Your task to perform on an android device: Empty the shopping cart on bestbuy. Add razer thresher to the cart on bestbuy, then select checkout. Image 0: 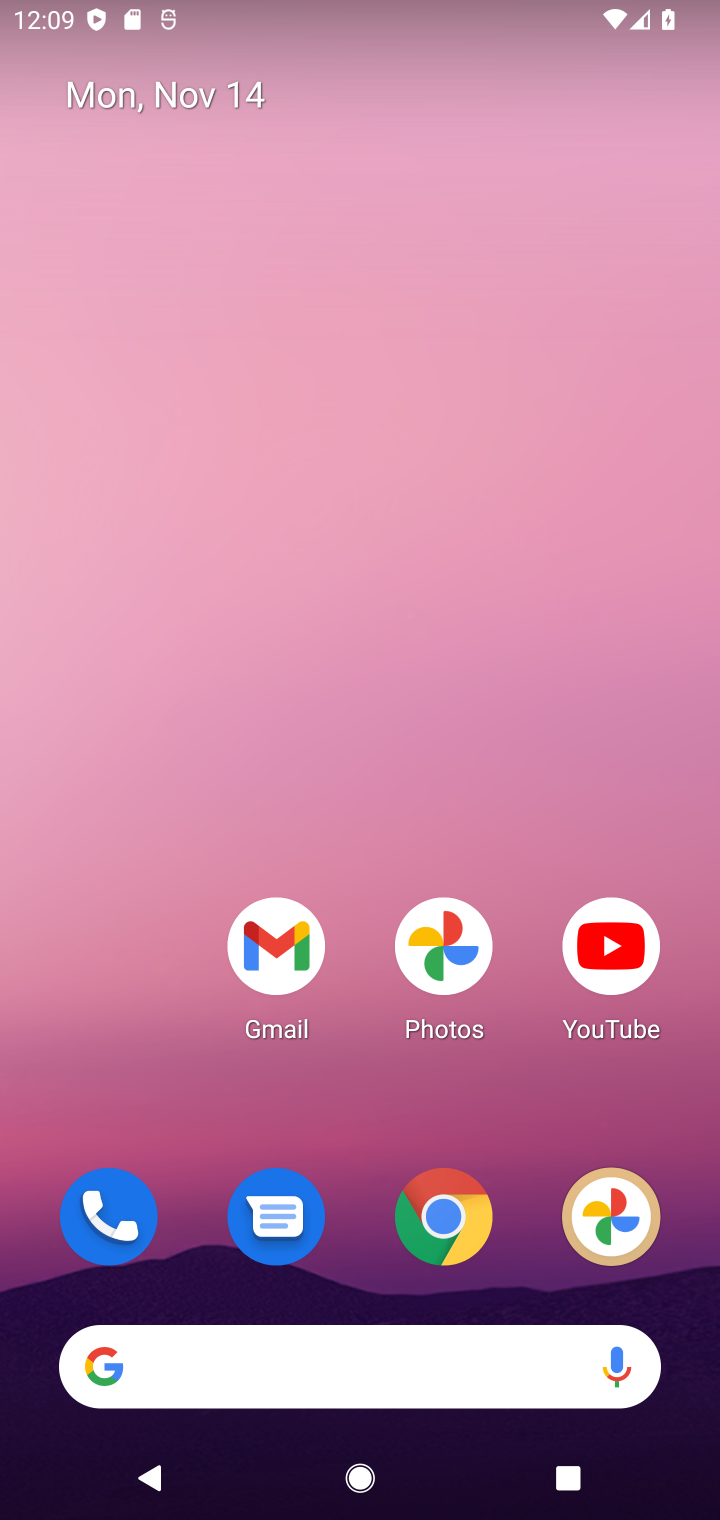
Step 0: click (437, 1214)
Your task to perform on an android device: Empty the shopping cart on bestbuy. Add razer thresher to the cart on bestbuy, then select checkout. Image 1: 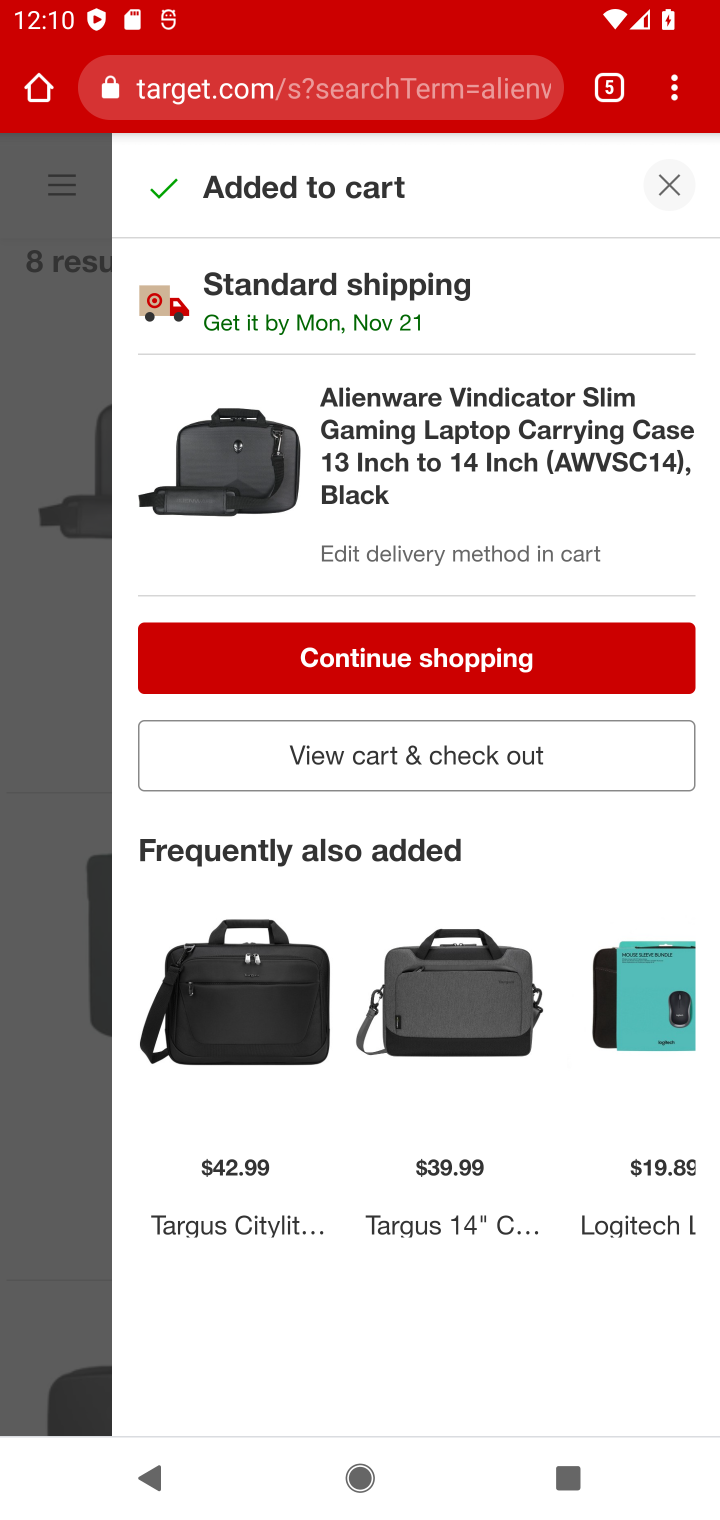
Step 1: click (613, 93)
Your task to perform on an android device: Empty the shopping cart on bestbuy. Add razer thresher to the cart on bestbuy, then select checkout. Image 2: 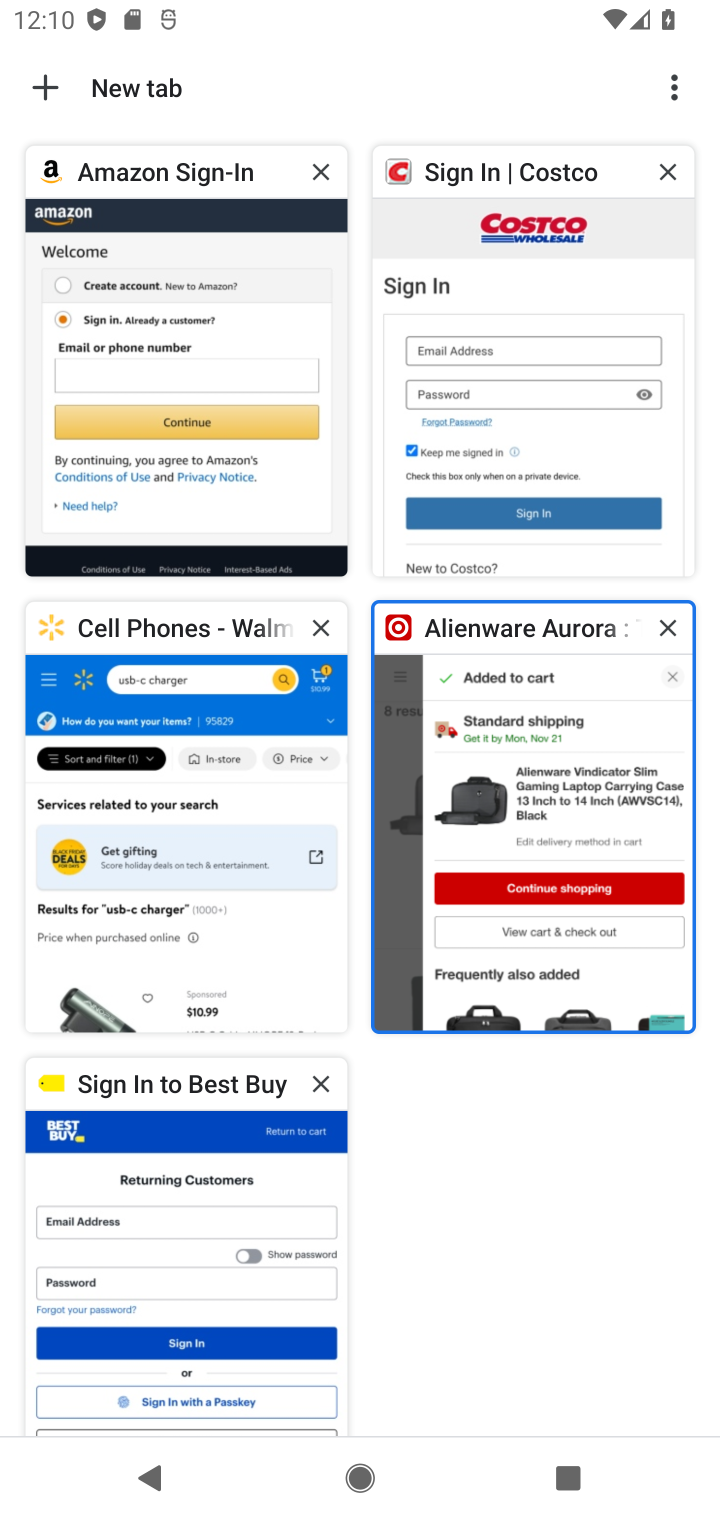
Step 2: click (183, 1293)
Your task to perform on an android device: Empty the shopping cart on bestbuy. Add razer thresher to the cart on bestbuy, then select checkout. Image 3: 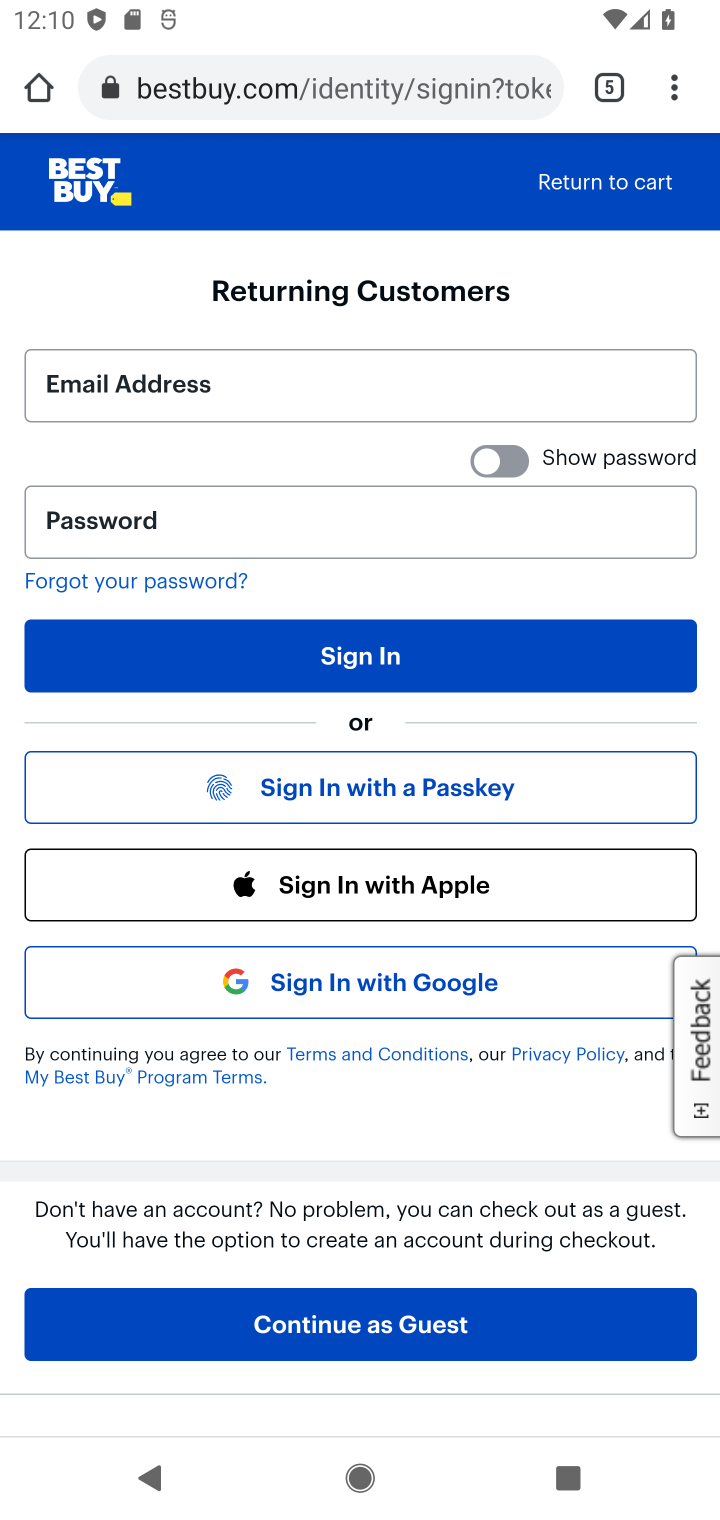
Step 3: click (617, 179)
Your task to perform on an android device: Empty the shopping cart on bestbuy. Add razer thresher to the cart on bestbuy, then select checkout. Image 4: 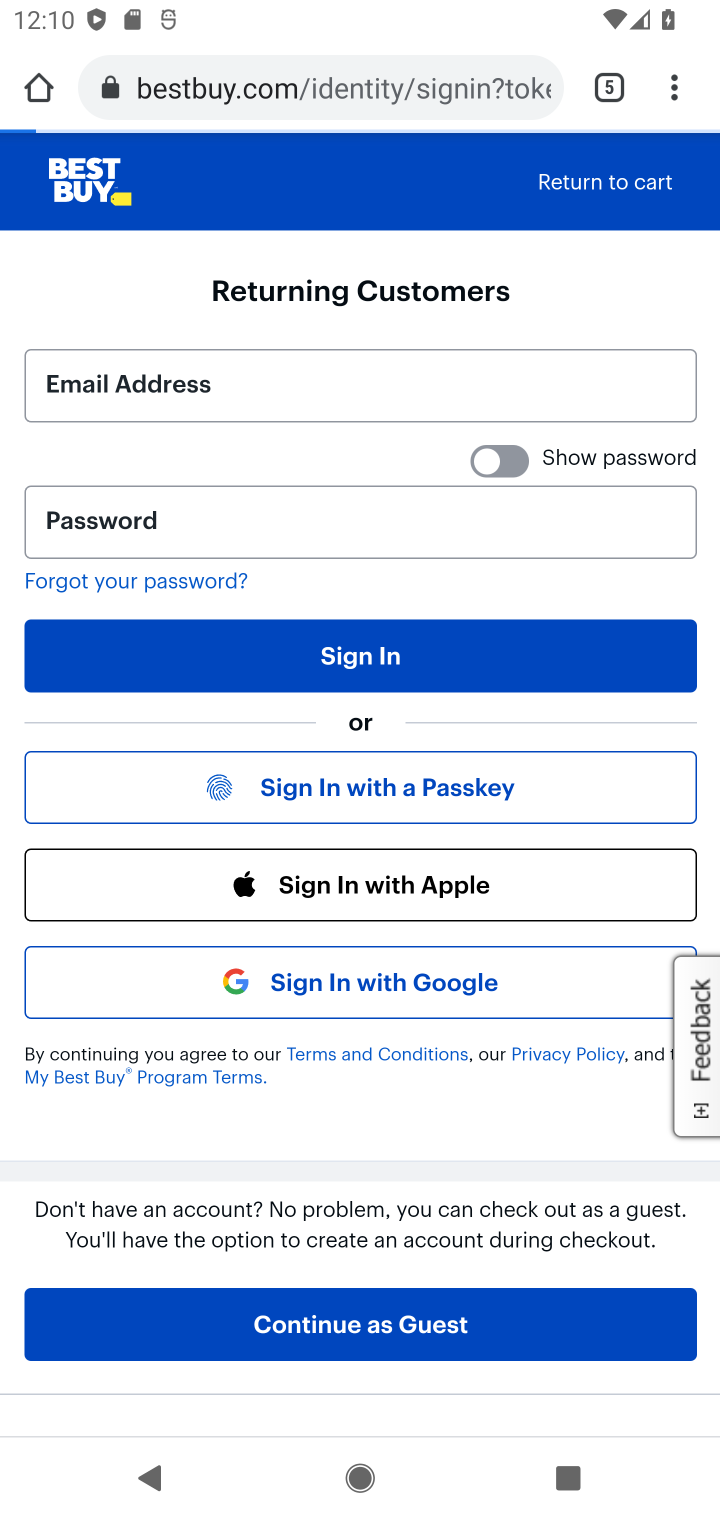
Step 4: click (603, 179)
Your task to perform on an android device: Empty the shopping cart on bestbuy. Add razer thresher to the cart on bestbuy, then select checkout. Image 5: 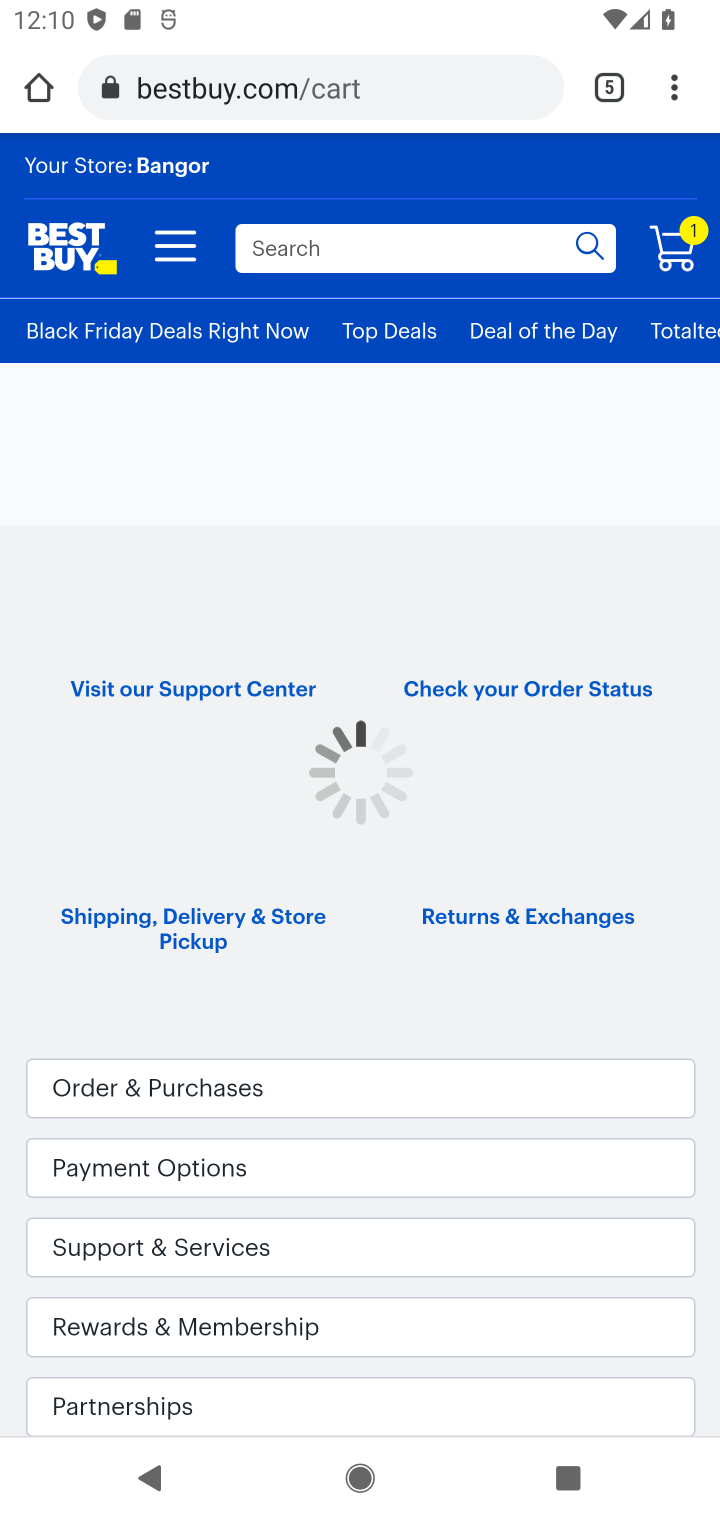
Step 5: click (418, 245)
Your task to perform on an android device: Empty the shopping cart on bestbuy. Add razer thresher to the cart on bestbuy, then select checkout. Image 6: 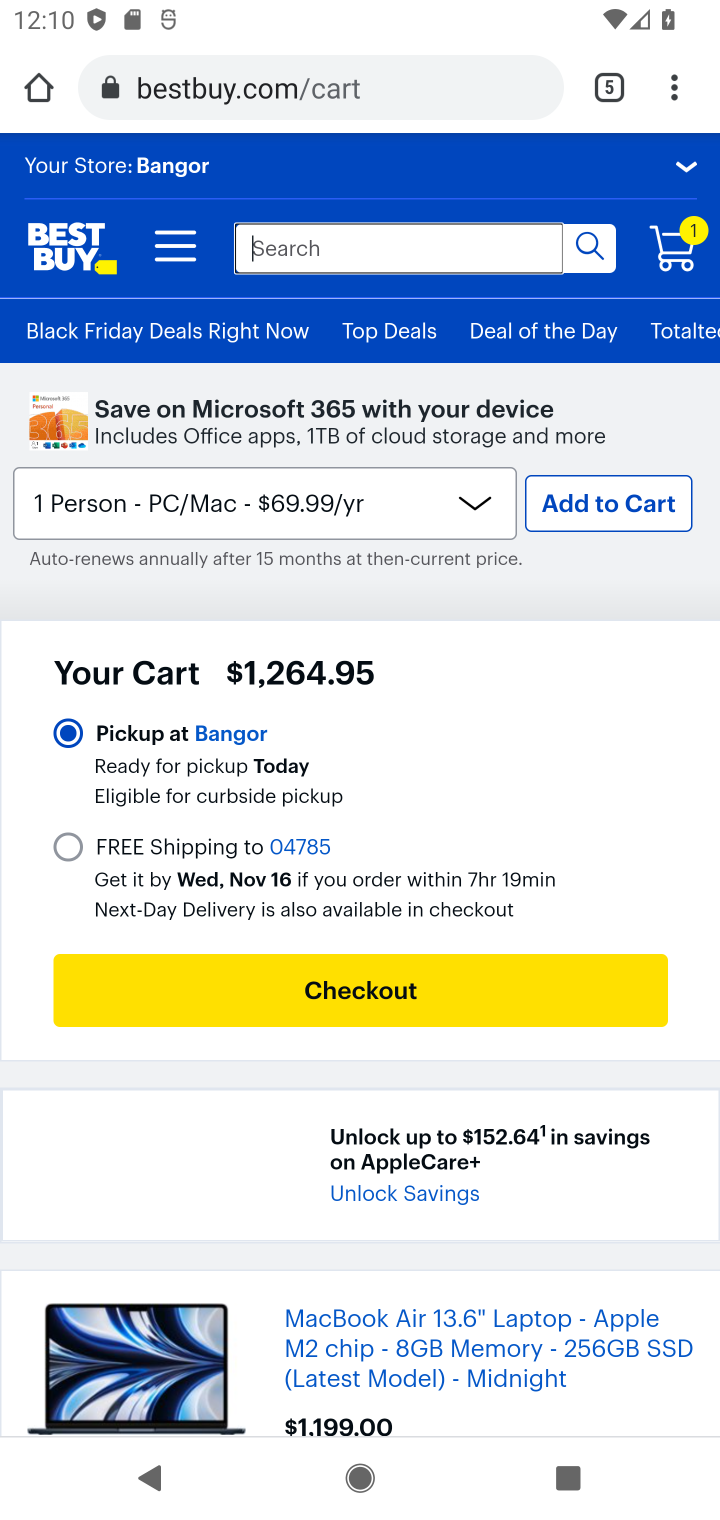
Step 6: type "razer thresher"
Your task to perform on an android device: Empty the shopping cart on bestbuy. Add razer thresher to the cart on bestbuy, then select checkout. Image 7: 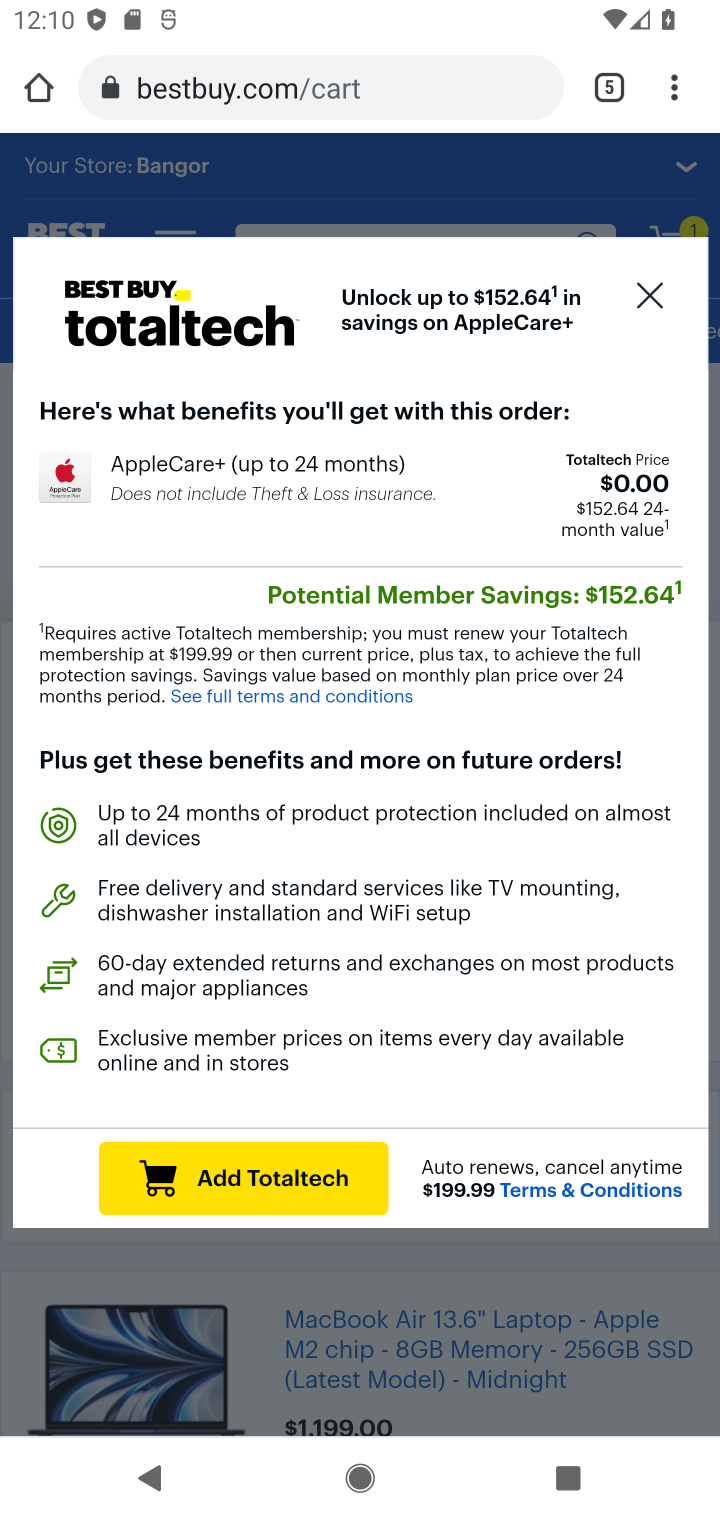
Step 7: click (649, 303)
Your task to perform on an android device: Empty the shopping cart on bestbuy. Add razer thresher to the cart on bestbuy, then select checkout. Image 8: 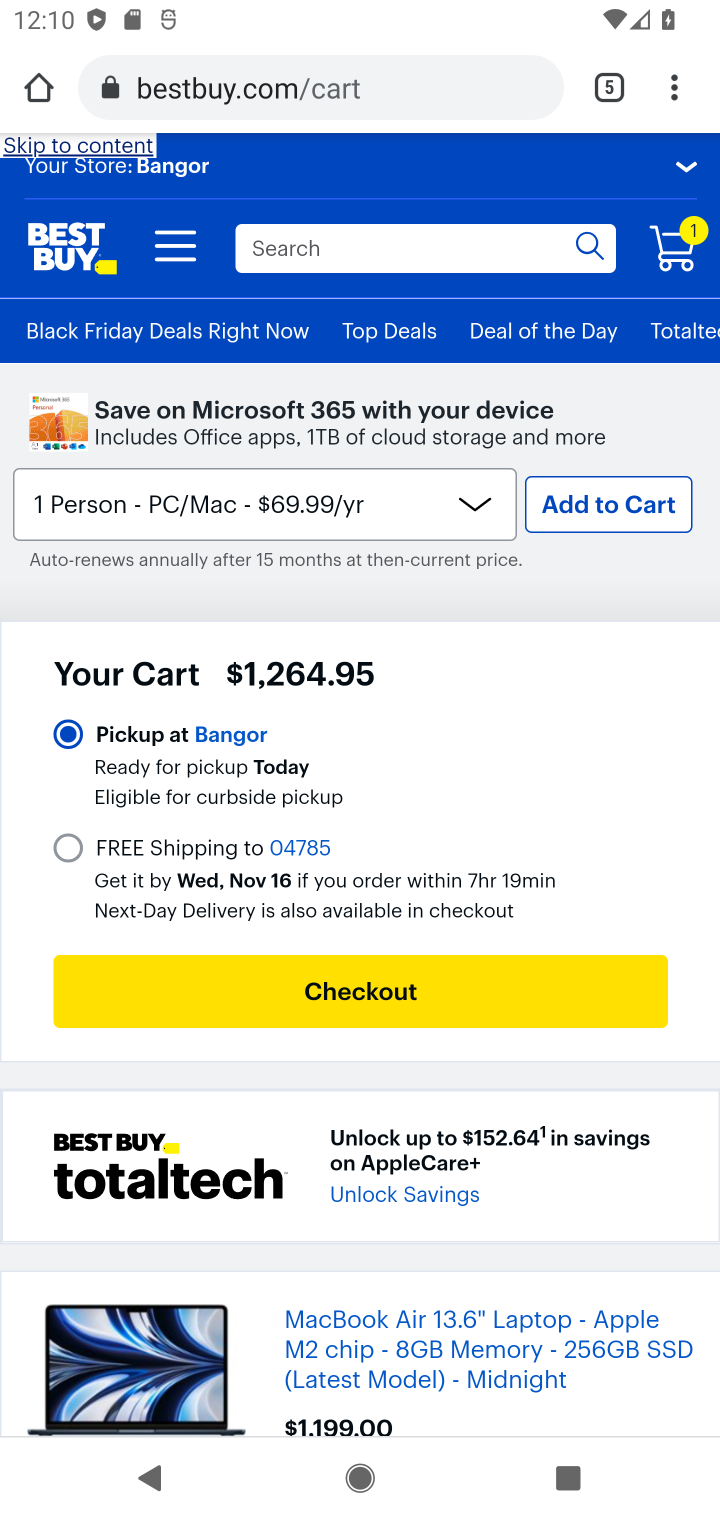
Step 8: click (434, 246)
Your task to perform on an android device: Empty the shopping cart on bestbuy. Add razer thresher to the cart on bestbuy, then select checkout. Image 9: 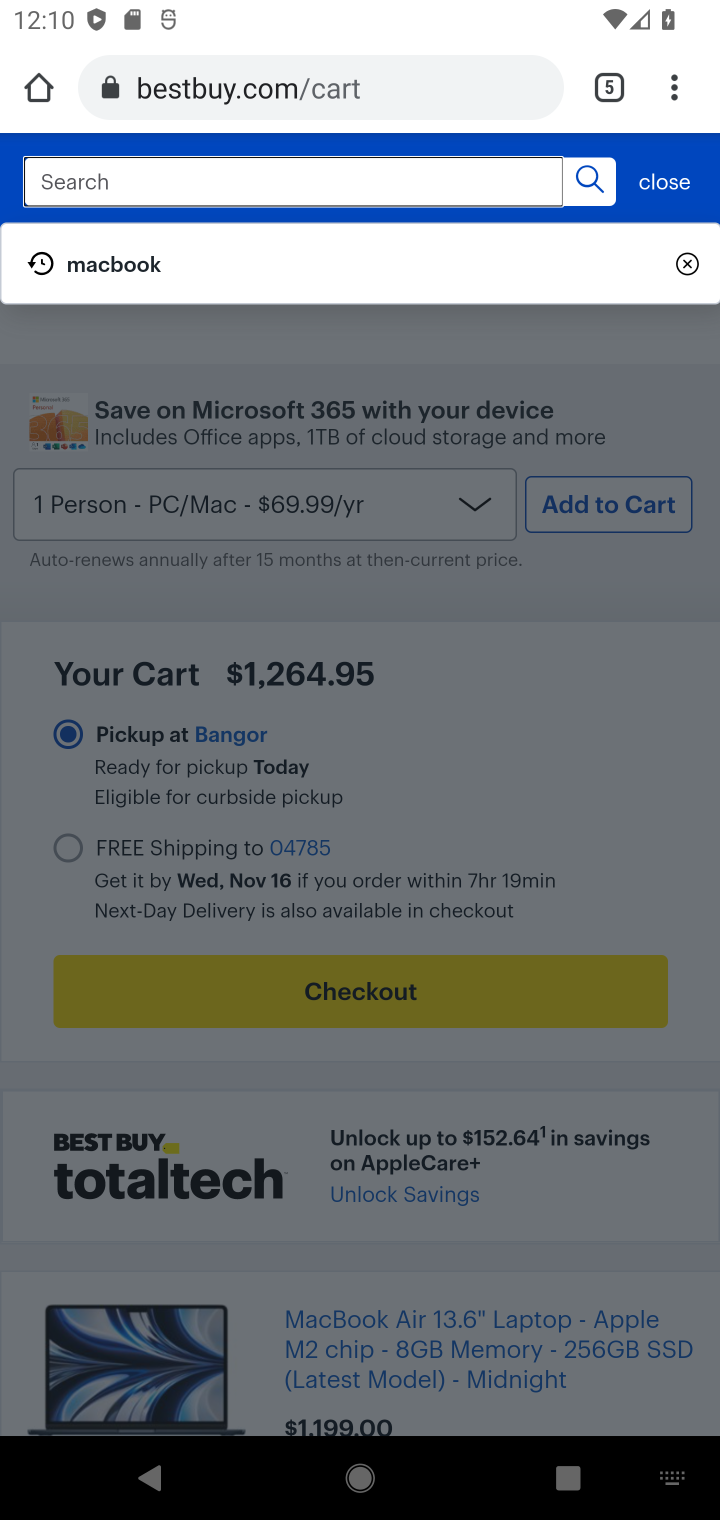
Step 9: type "razer thresher"
Your task to perform on an android device: Empty the shopping cart on bestbuy. Add razer thresher to the cart on bestbuy, then select checkout. Image 10: 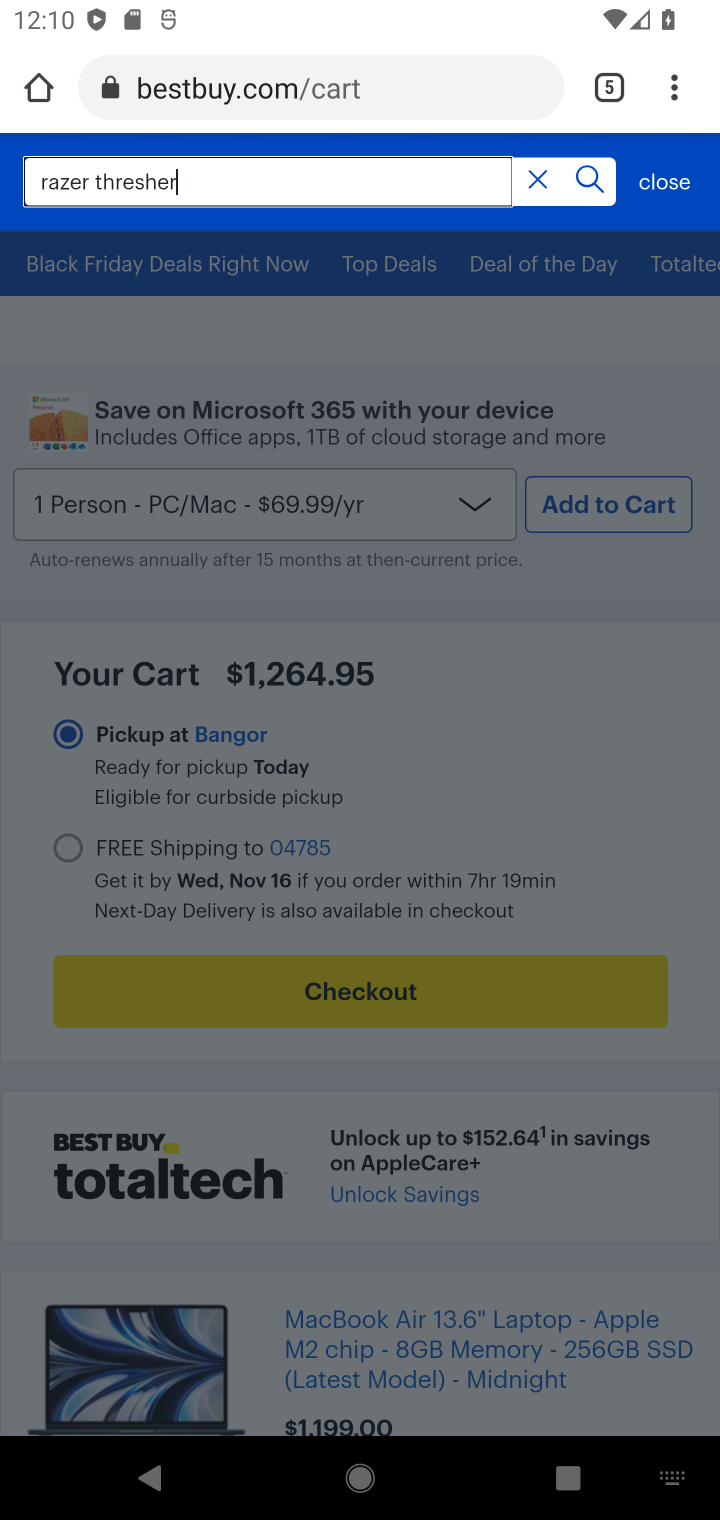
Step 10: click (597, 179)
Your task to perform on an android device: Empty the shopping cart on bestbuy. Add razer thresher to the cart on bestbuy, then select checkout. Image 11: 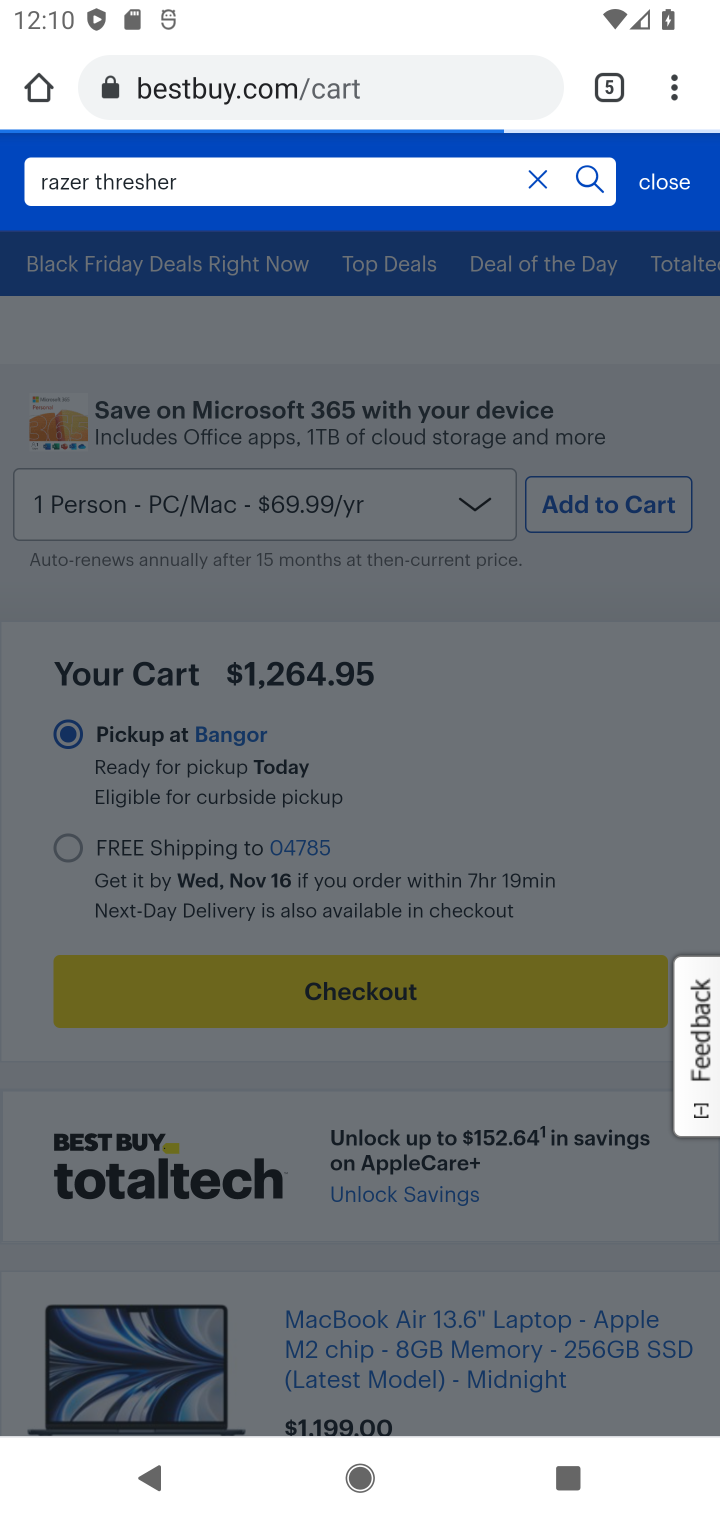
Step 11: click (588, 178)
Your task to perform on an android device: Empty the shopping cart on bestbuy. Add razer thresher to the cart on bestbuy, then select checkout. Image 12: 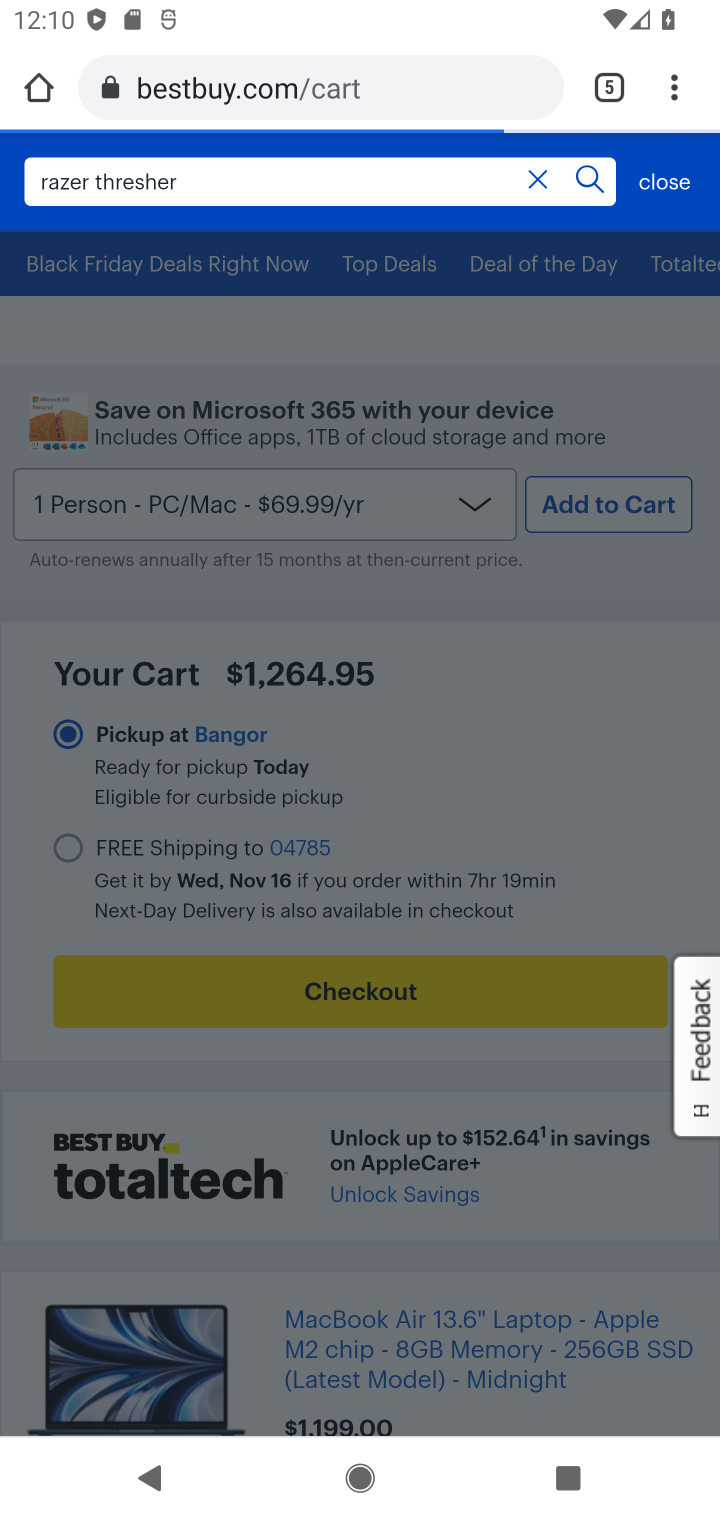
Step 12: click (588, 178)
Your task to perform on an android device: Empty the shopping cart on bestbuy. Add razer thresher to the cart on bestbuy, then select checkout. Image 13: 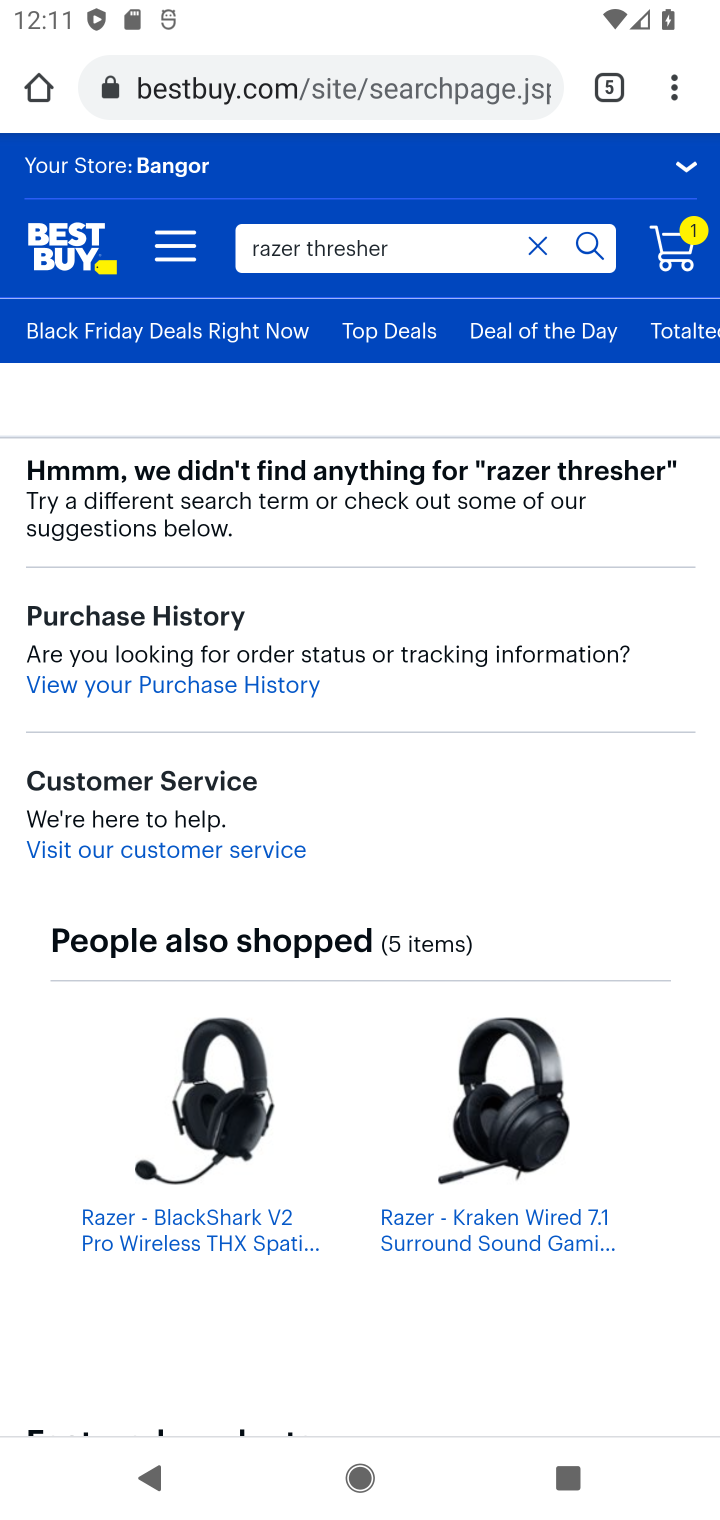
Step 13: task complete